Your task to perform on an android device: Go to ESPN.com Image 0: 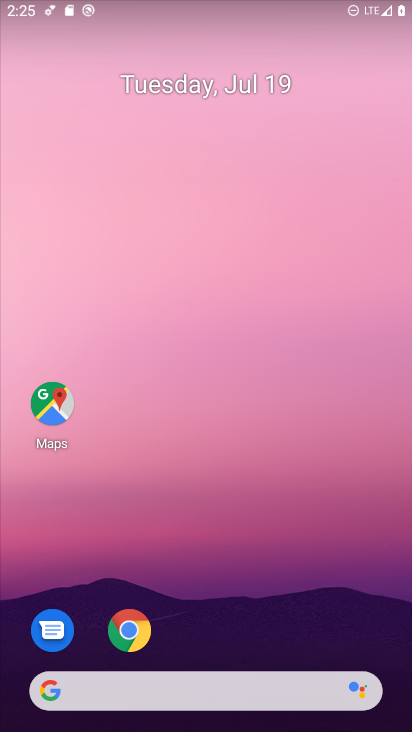
Step 0: click (130, 632)
Your task to perform on an android device: Go to ESPN.com Image 1: 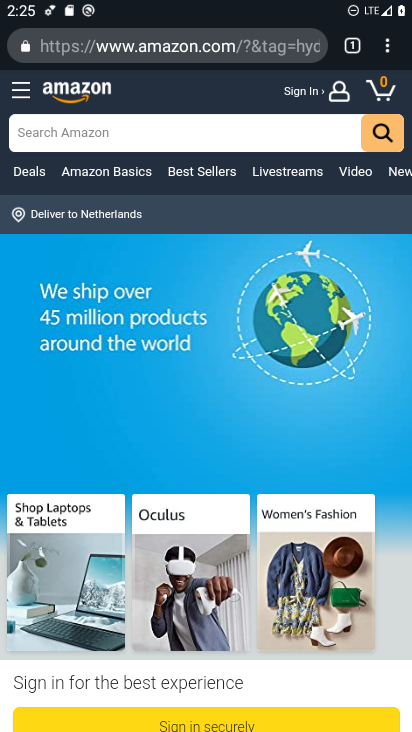
Step 1: click (270, 39)
Your task to perform on an android device: Go to ESPN.com Image 2: 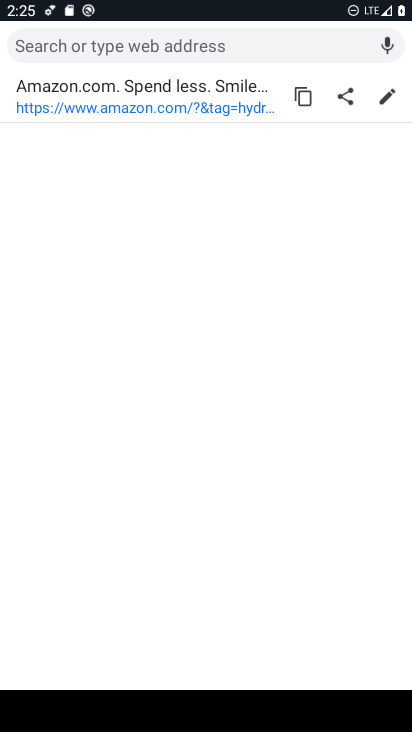
Step 2: type "ESPN.com"
Your task to perform on an android device: Go to ESPN.com Image 3: 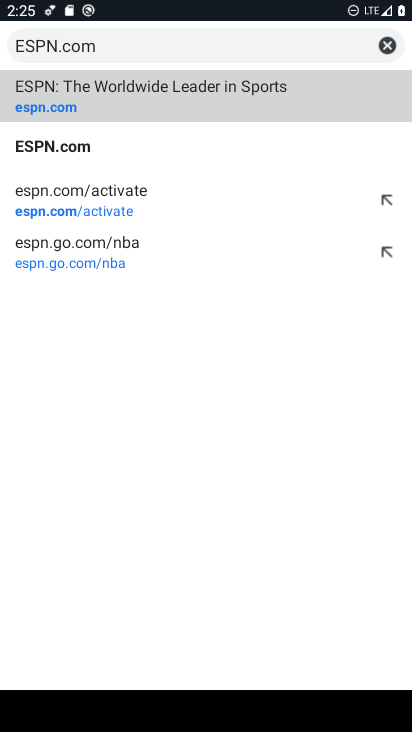
Step 3: click (43, 90)
Your task to perform on an android device: Go to ESPN.com Image 4: 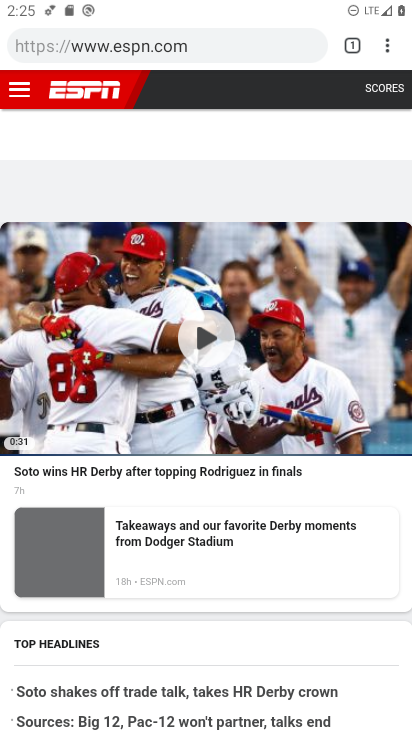
Step 4: task complete